Your task to perform on an android device: turn pop-ups on in chrome Image 0: 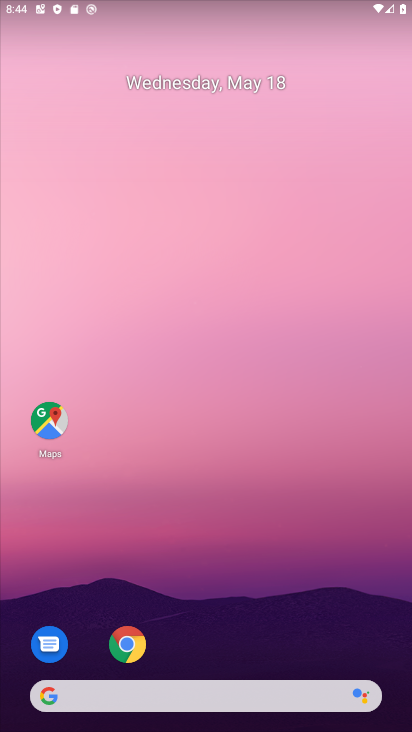
Step 0: drag from (184, 678) to (281, 114)
Your task to perform on an android device: turn pop-ups on in chrome Image 1: 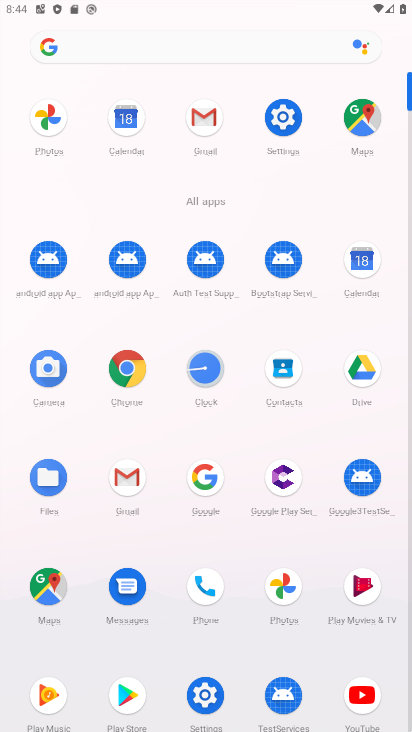
Step 1: click (132, 384)
Your task to perform on an android device: turn pop-ups on in chrome Image 2: 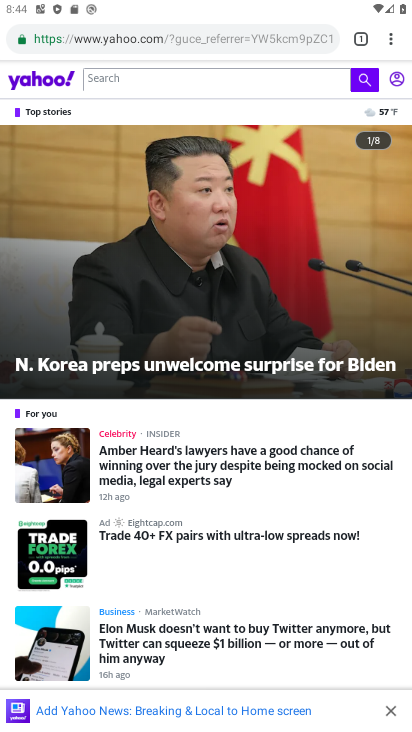
Step 2: click (399, 29)
Your task to perform on an android device: turn pop-ups on in chrome Image 3: 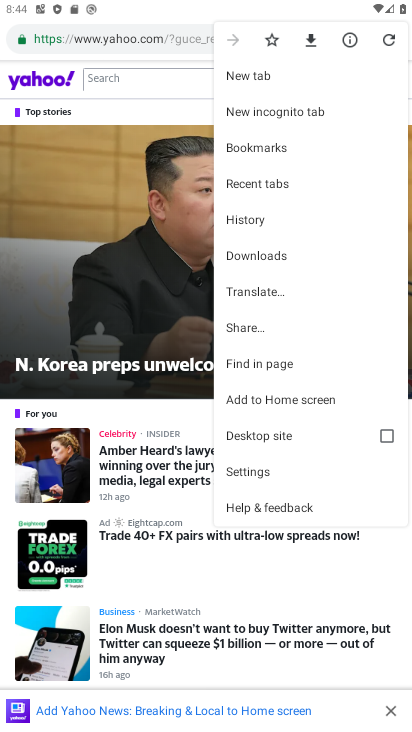
Step 3: click (249, 470)
Your task to perform on an android device: turn pop-ups on in chrome Image 4: 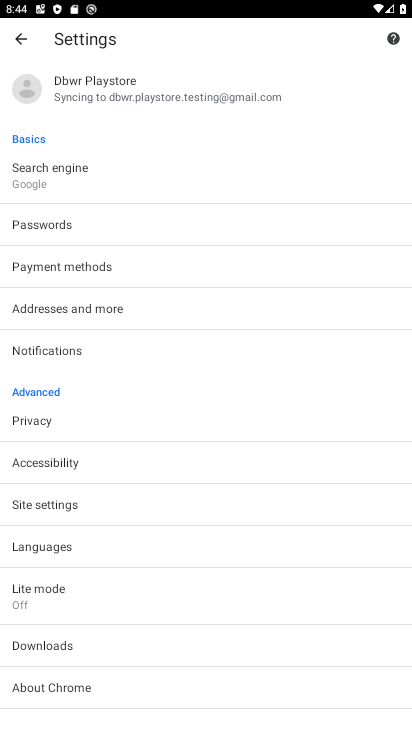
Step 4: click (66, 502)
Your task to perform on an android device: turn pop-ups on in chrome Image 5: 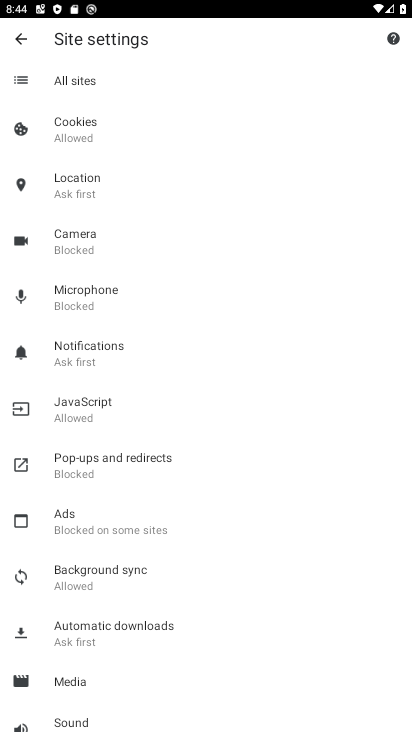
Step 5: click (129, 465)
Your task to perform on an android device: turn pop-ups on in chrome Image 6: 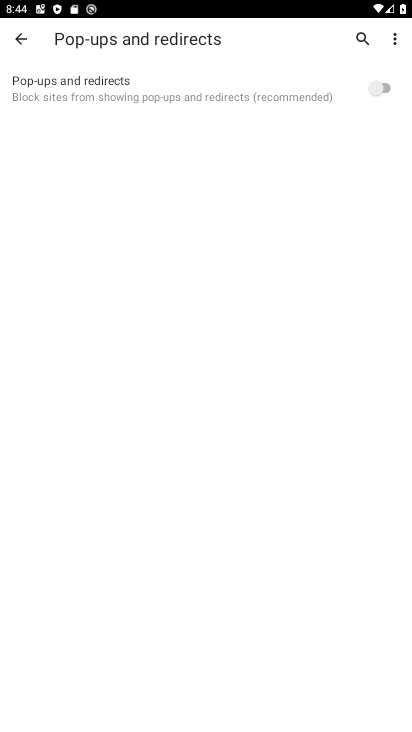
Step 6: click (374, 78)
Your task to perform on an android device: turn pop-ups on in chrome Image 7: 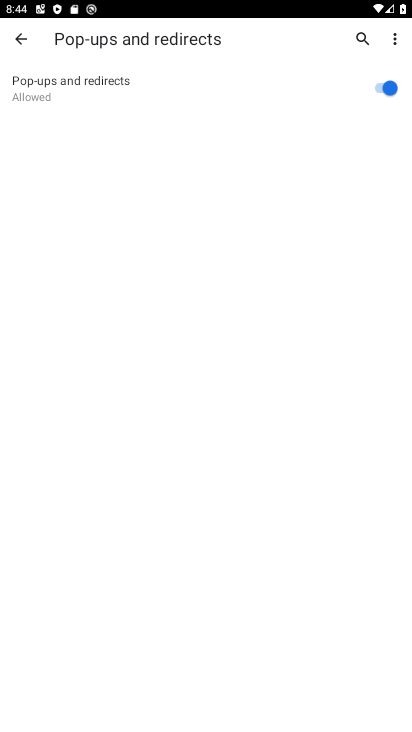
Step 7: task complete